Your task to perform on an android device: When is my next appointment? Image 0: 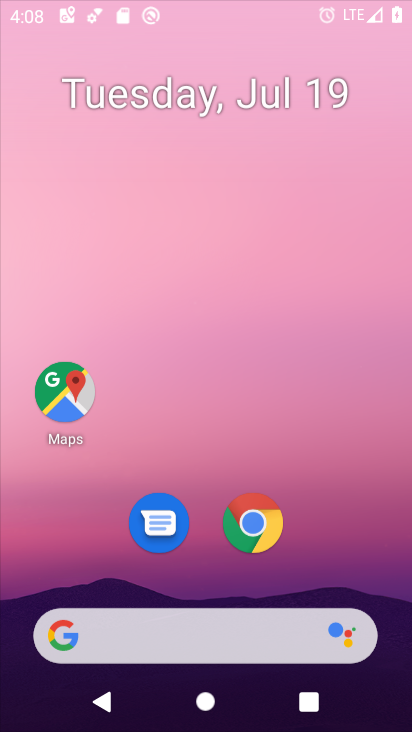
Step 0: click (328, 58)
Your task to perform on an android device: When is my next appointment? Image 1: 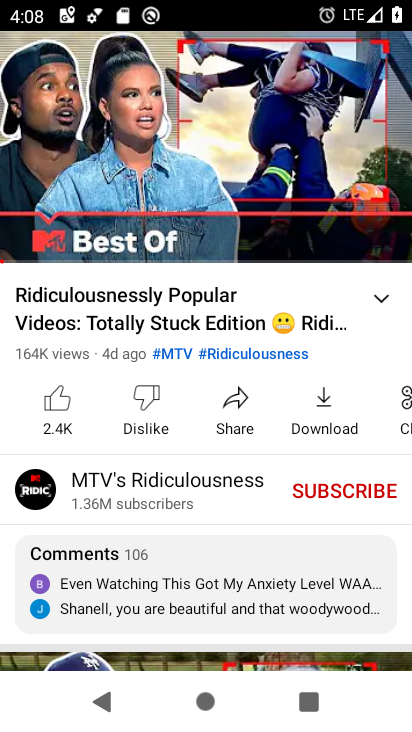
Step 1: press home button
Your task to perform on an android device: When is my next appointment? Image 2: 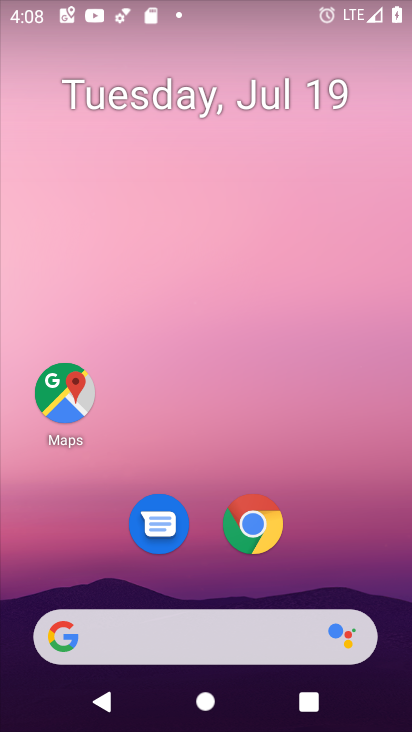
Step 2: drag from (311, 564) to (224, 177)
Your task to perform on an android device: When is my next appointment? Image 3: 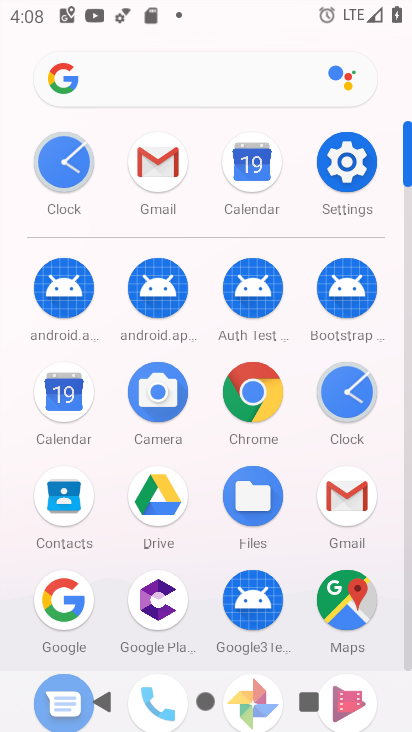
Step 3: click (189, 74)
Your task to perform on an android device: When is my next appointment? Image 4: 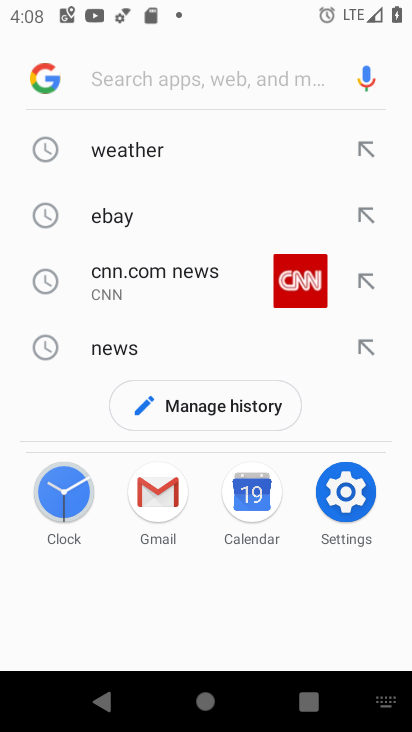
Step 4: press home button
Your task to perform on an android device: When is my next appointment? Image 5: 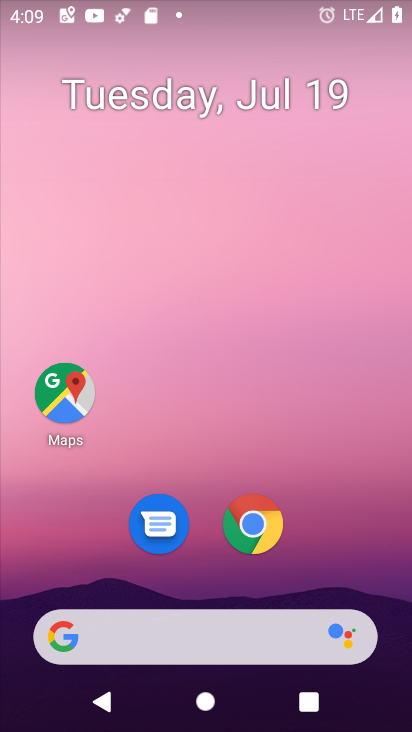
Step 5: drag from (332, 488) to (284, 63)
Your task to perform on an android device: When is my next appointment? Image 6: 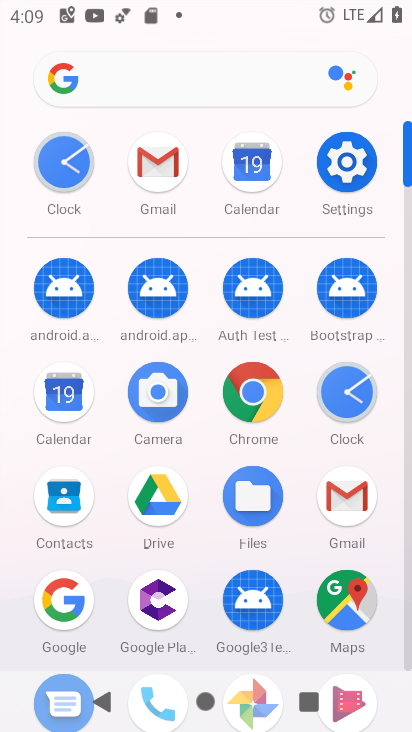
Step 6: click (55, 405)
Your task to perform on an android device: When is my next appointment? Image 7: 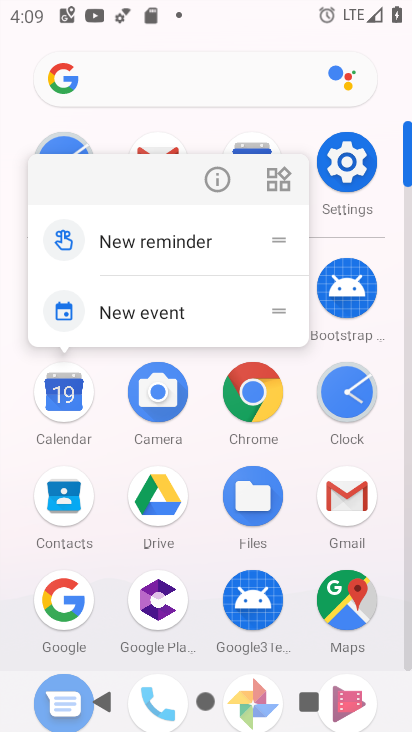
Step 7: click (58, 393)
Your task to perform on an android device: When is my next appointment? Image 8: 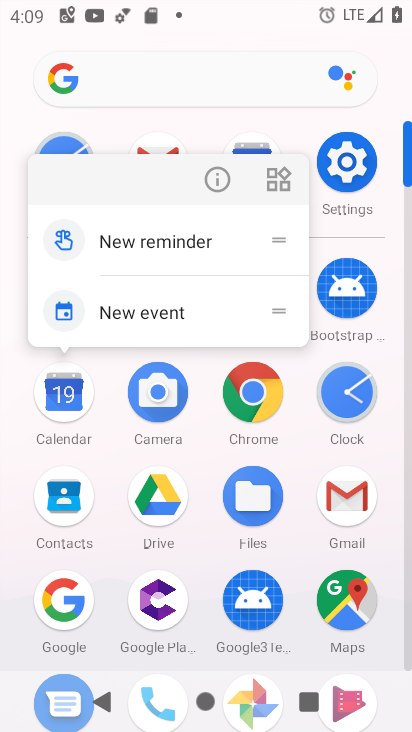
Step 8: click (59, 387)
Your task to perform on an android device: When is my next appointment? Image 9: 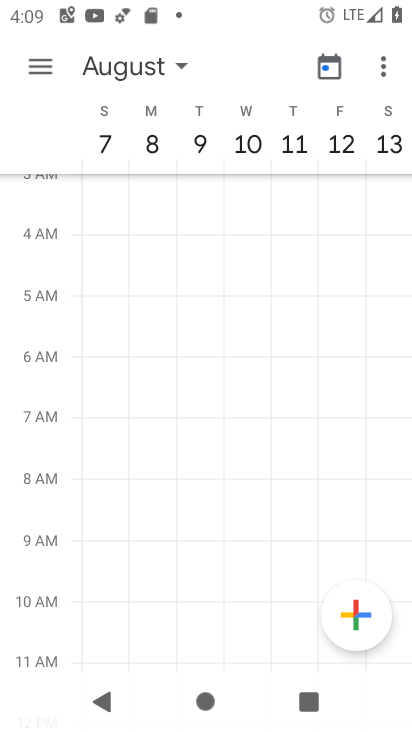
Step 9: task complete